Your task to perform on an android device: star an email in the gmail app Image 0: 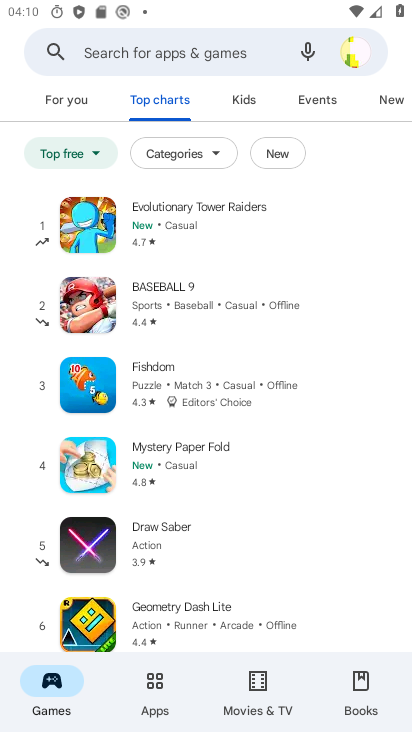
Step 0: press home button
Your task to perform on an android device: star an email in the gmail app Image 1: 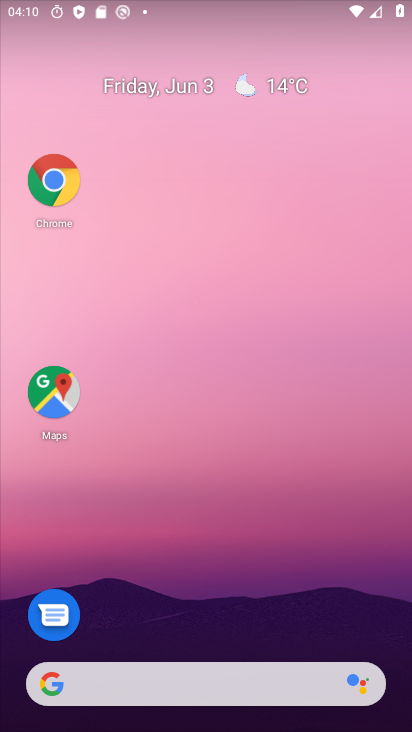
Step 1: drag from (122, 731) to (175, 72)
Your task to perform on an android device: star an email in the gmail app Image 2: 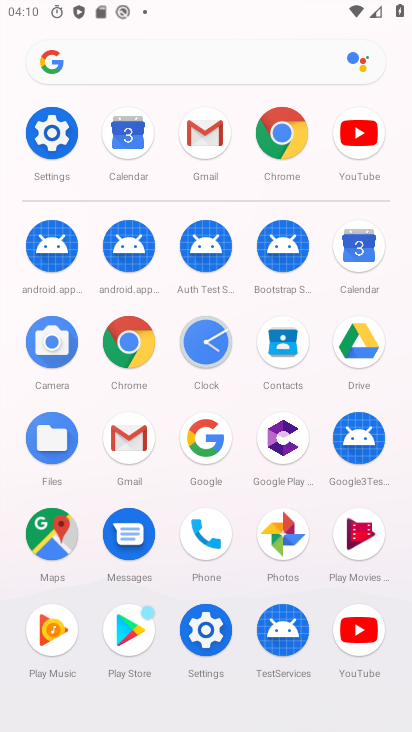
Step 2: click (115, 451)
Your task to perform on an android device: star an email in the gmail app Image 3: 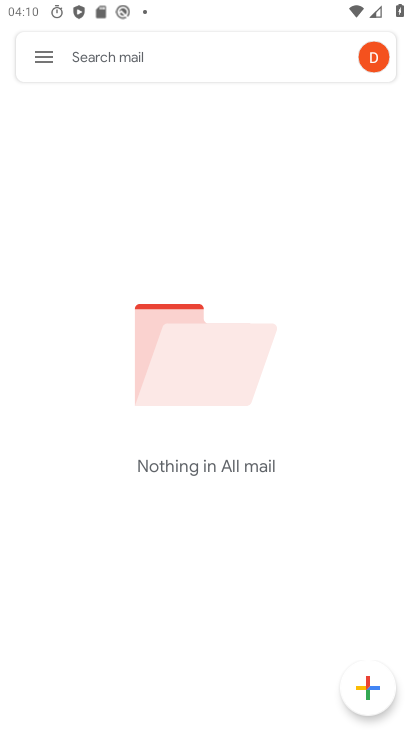
Step 3: click (40, 63)
Your task to perform on an android device: star an email in the gmail app Image 4: 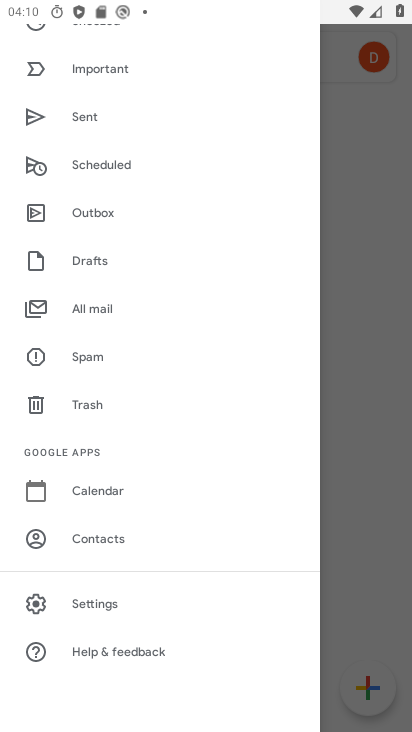
Step 4: drag from (217, 144) to (202, 701)
Your task to perform on an android device: star an email in the gmail app Image 5: 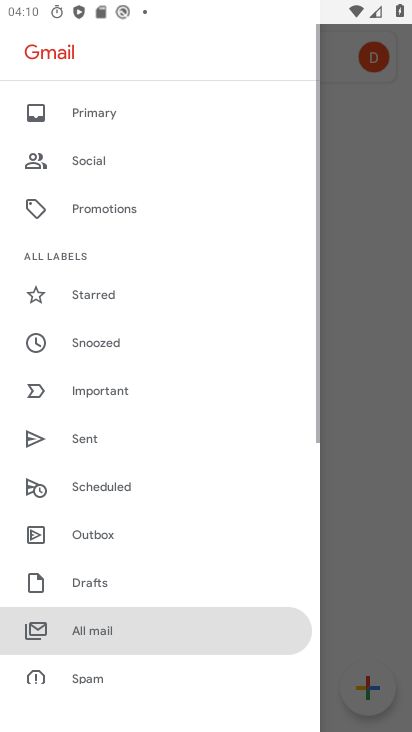
Step 5: click (111, 112)
Your task to perform on an android device: star an email in the gmail app Image 6: 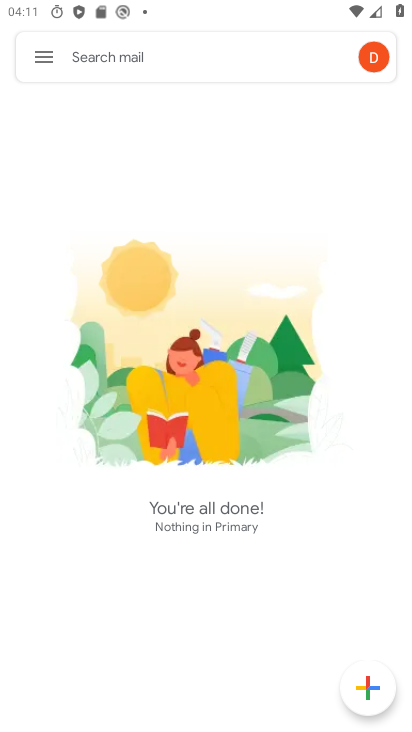
Step 6: task complete